Your task to perform on an android device: turn off priority inbox in the gmail app Image 0: 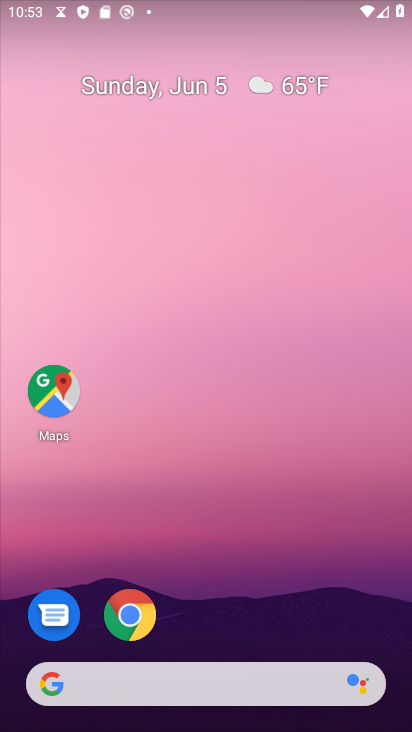
Step 0: drag from (273, 604) to (409, 88)
Your task to perform on an android device: turn off priority inbox in the gmail app Image 1: 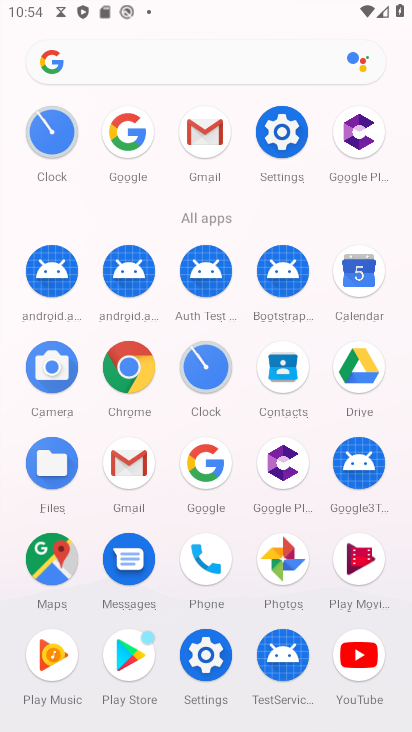
Step 1: click (126, 462)
Your task to perform on an android device: turn off priority inbox in the gmail app Image 2: 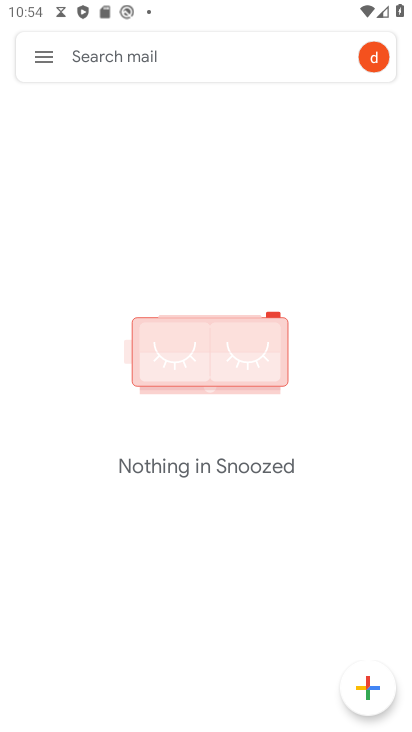
Step 2: click (46, 59)
Your task to perform on an android device: turn off priority inbox in the gmail app Image 3: 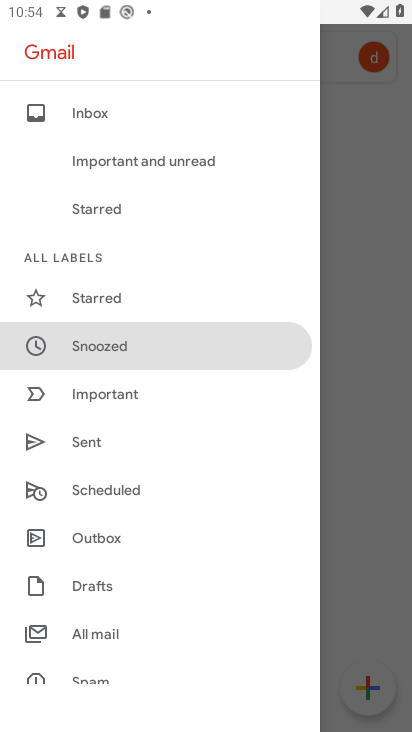
Step 3: drag from (131, 392) to (166, 313)
Your task to perform on an android device: turn off priority inbox in the gmail app Image 4: 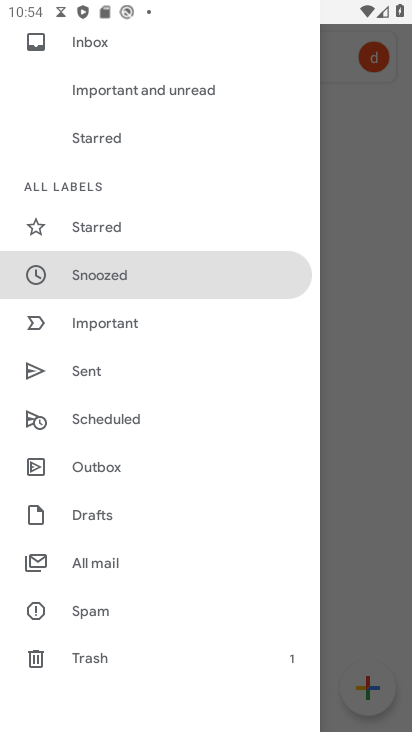
Step 4: drag from (151, 376) to (170, 344)
Your task to perform on an android device: turn off priority inbox in the gmail app Image 5: 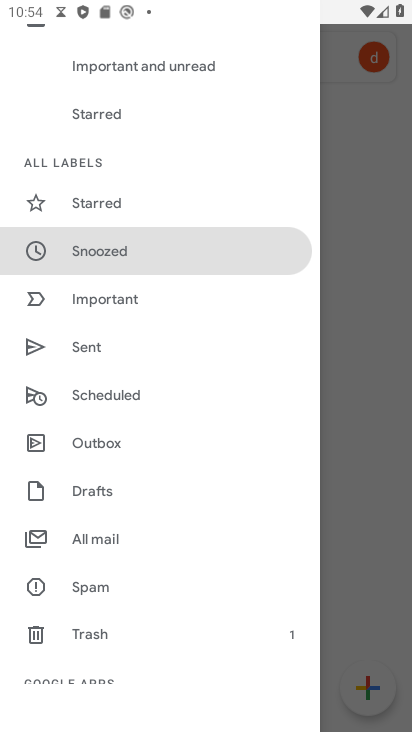
Step 5: drag from (127, 513) to (175, 406)
Your task to perform on an android device: turn off priority inbox in the gmail app Image 6: 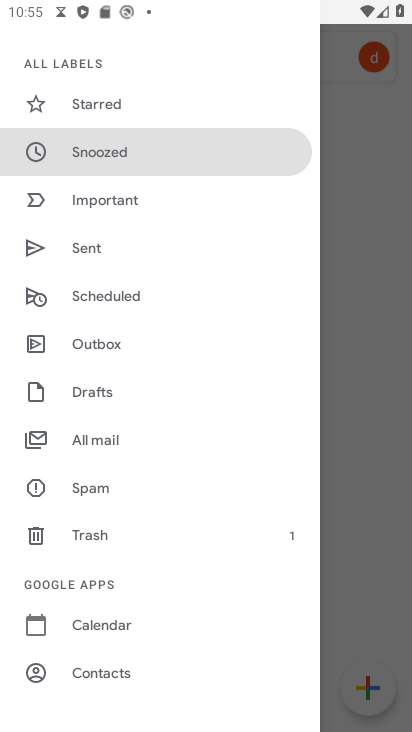
Step 6: drag from (149, 572) to (184, 468)
Your task to perform on an android device: turn off priority inbox in the gmail app Image 7: 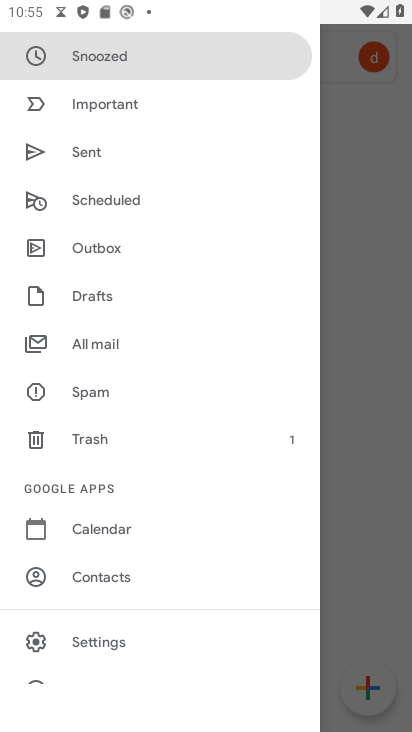
Step 7: click (84, 642)
Your task to perform on an android device: turn off priority inbox in the gmail app Image 8: 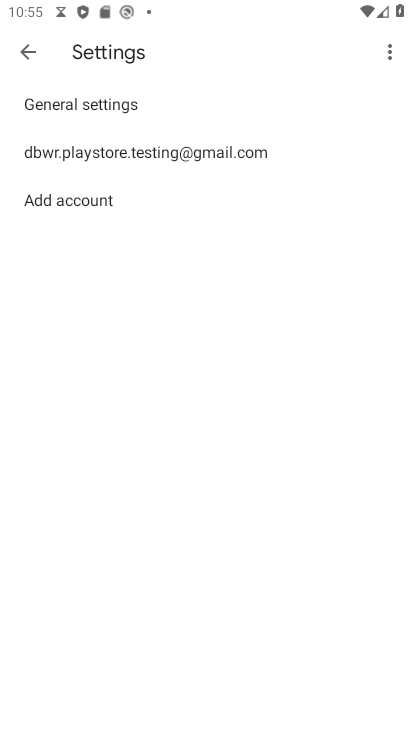
Step 8: click (55, 159)
Your task to perform on an android device: turn off priority inbox in the gmail app Image 9: 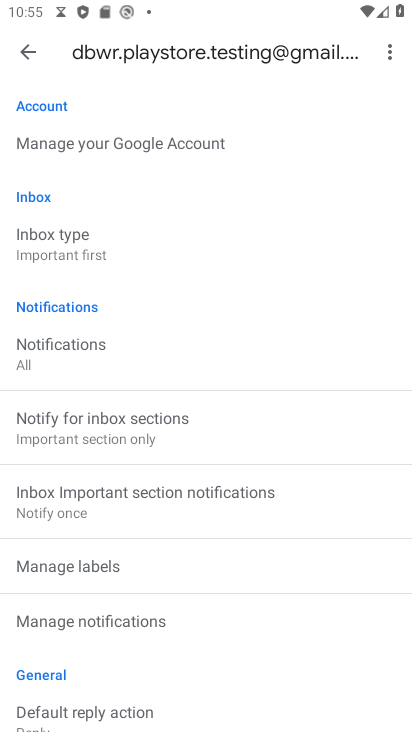
Step 9: task complete